Your task to perform on an android device: What's the weather going to be tomorrow? Image 0: 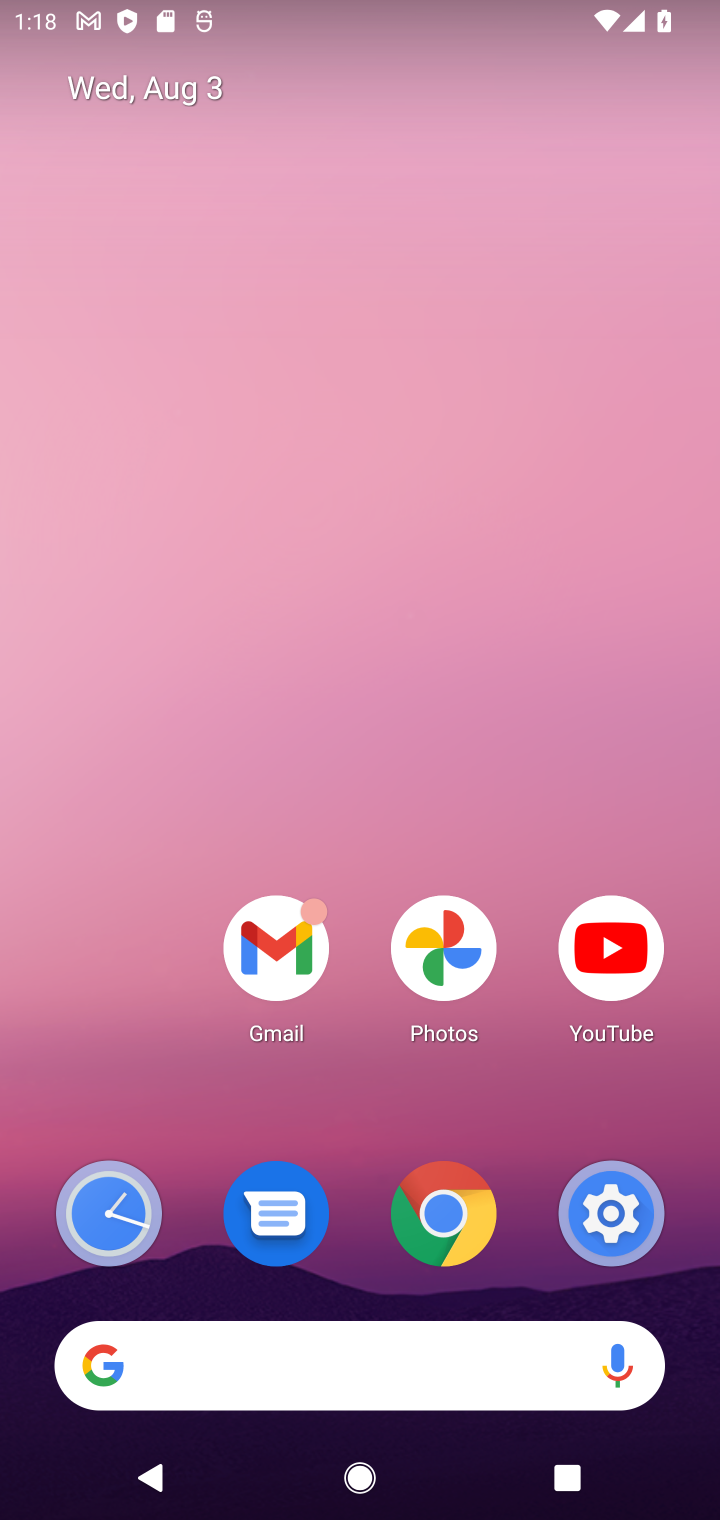
Step 0: drag from (477, 1316) to (477, 0)
Your task to perform on an android device: What's the weather going to be tomorrow? Image 1: 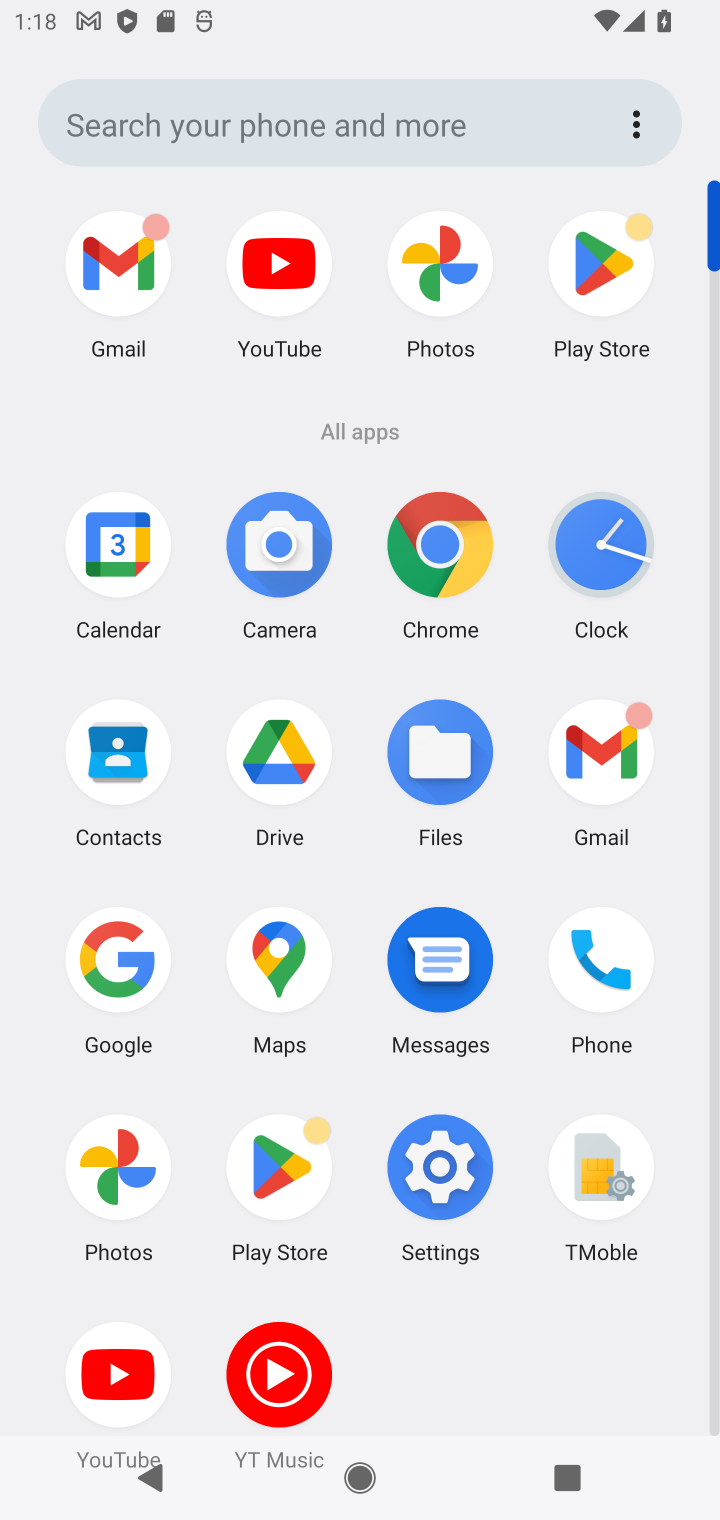
Step 1: click (423, 540)
Your task to perform on an android device: What's the weather going to be tomorrow? Image 2: 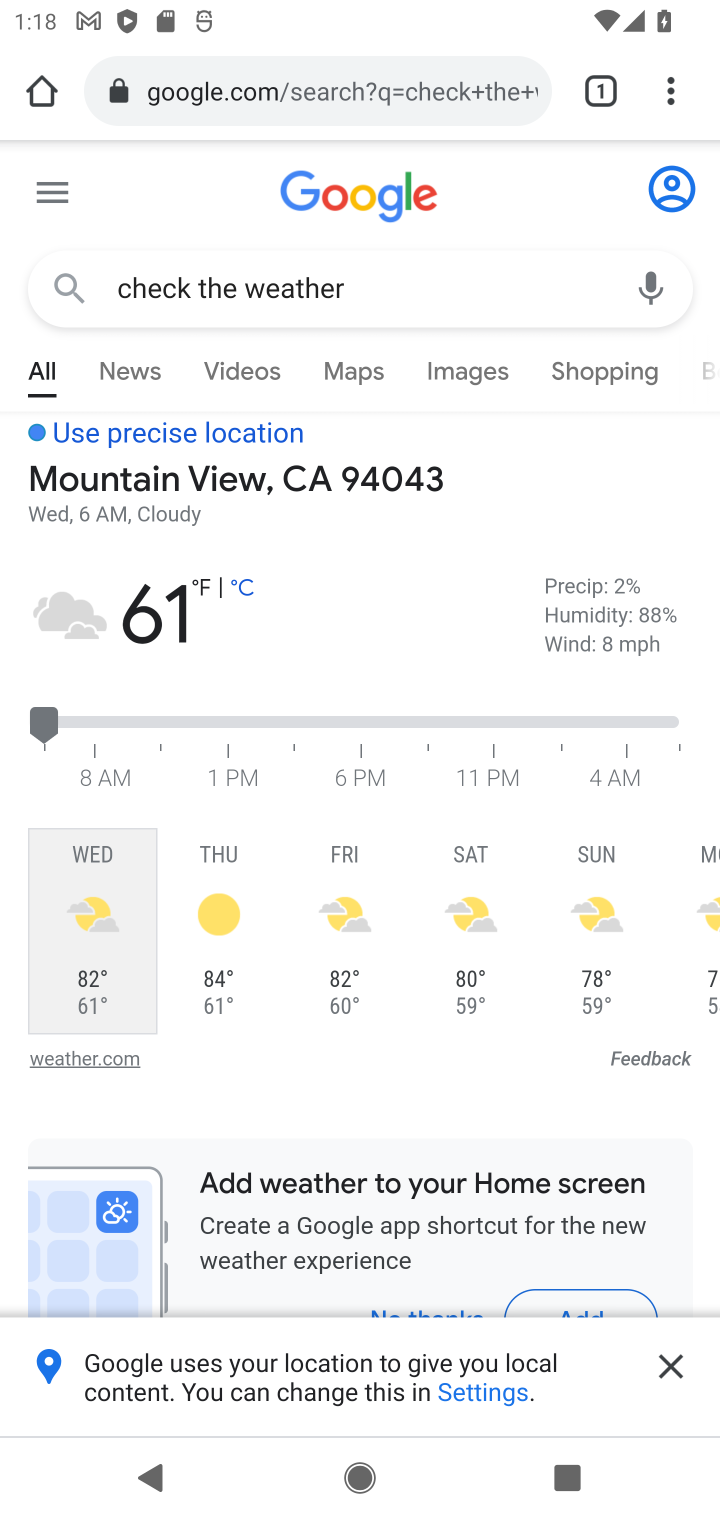
Step 2: click (435, 99)
Your task to perform on an android device: What's the weather going to be tomorrow? Image 3: 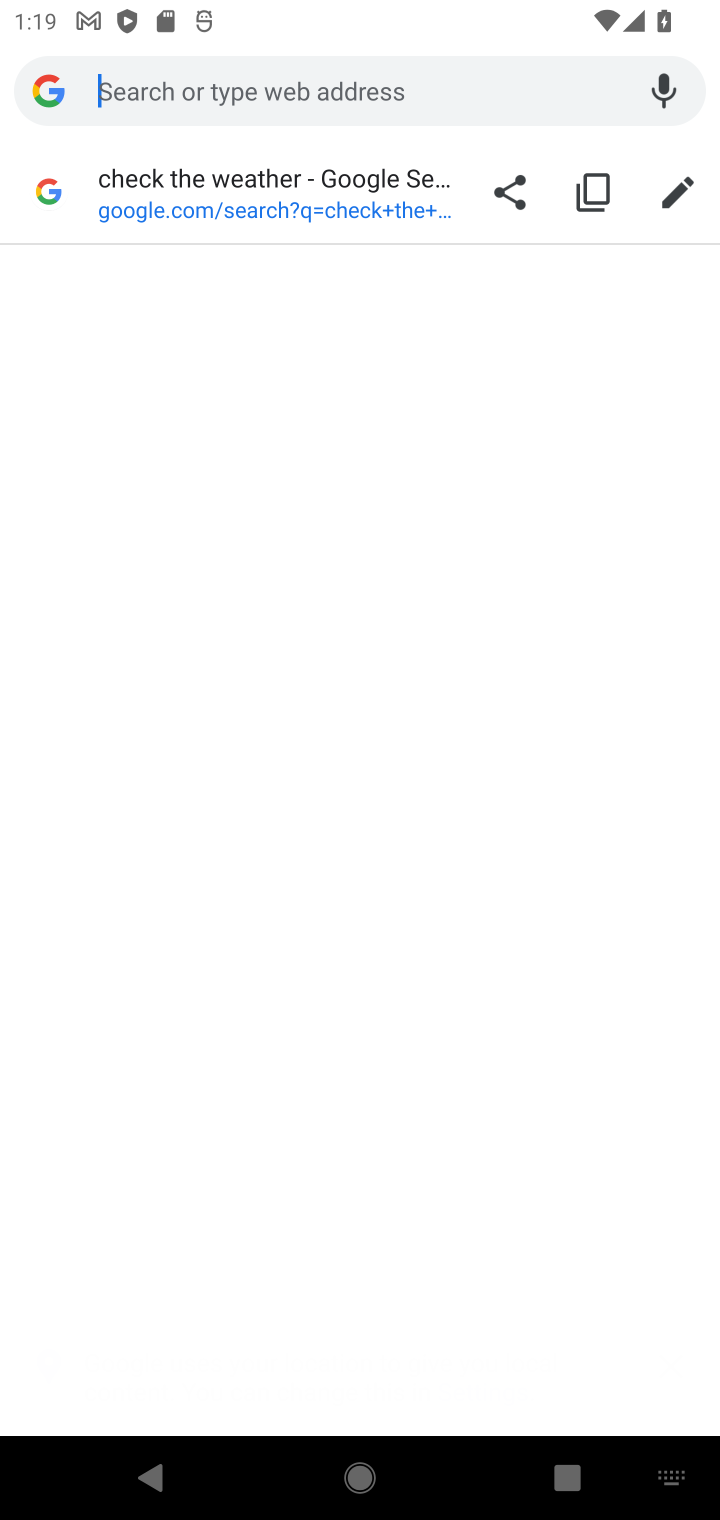
Step 3: type "weather going to be tomorrow"
Your task to perform on an android device: What's the weather going to be tomorrow? Image 4: 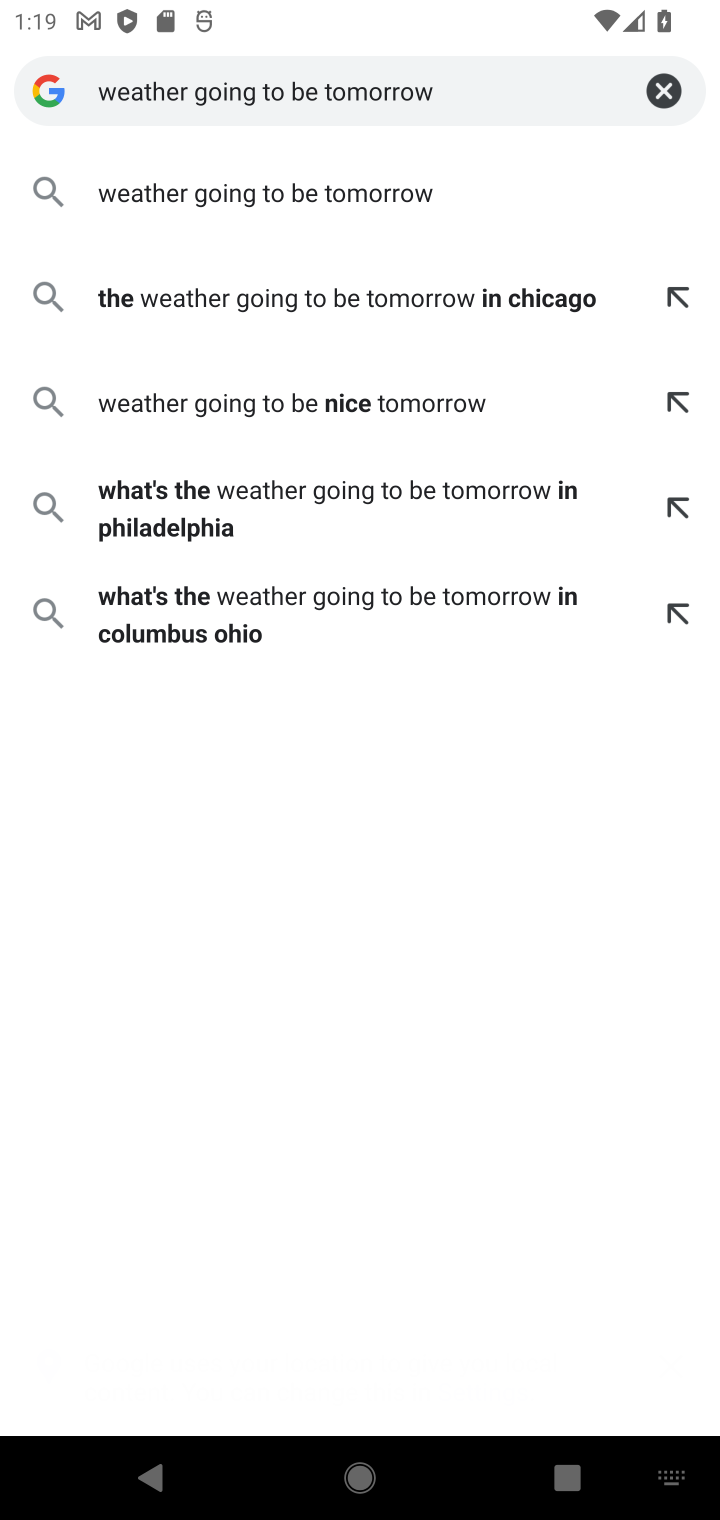
Step 4: click (268, 194)
Your task to perform on an android device: What's the weather going to be tomorrow? Image 5: 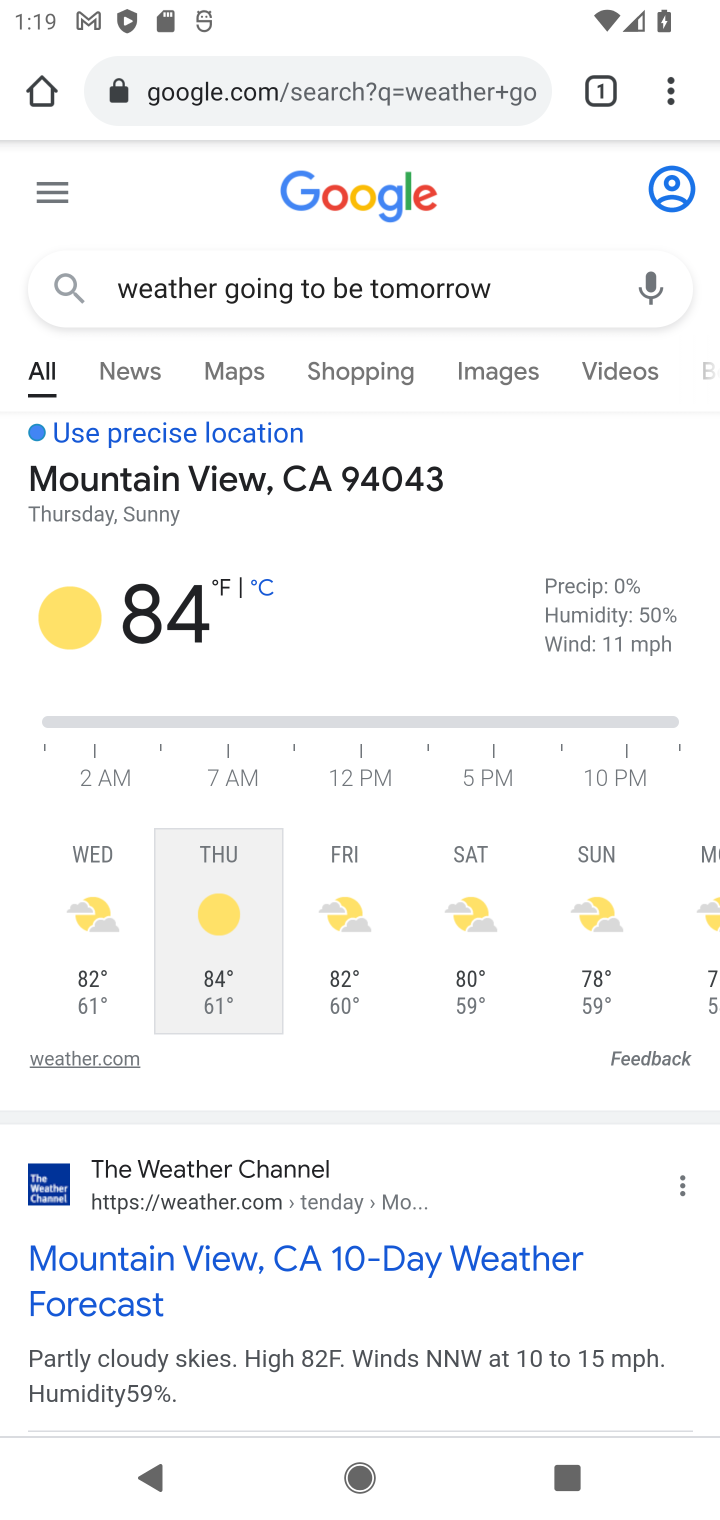
Step 5: click (319, 943)
Your task to perform on an android device: What's the weather going to be tomorrow? Image 6: 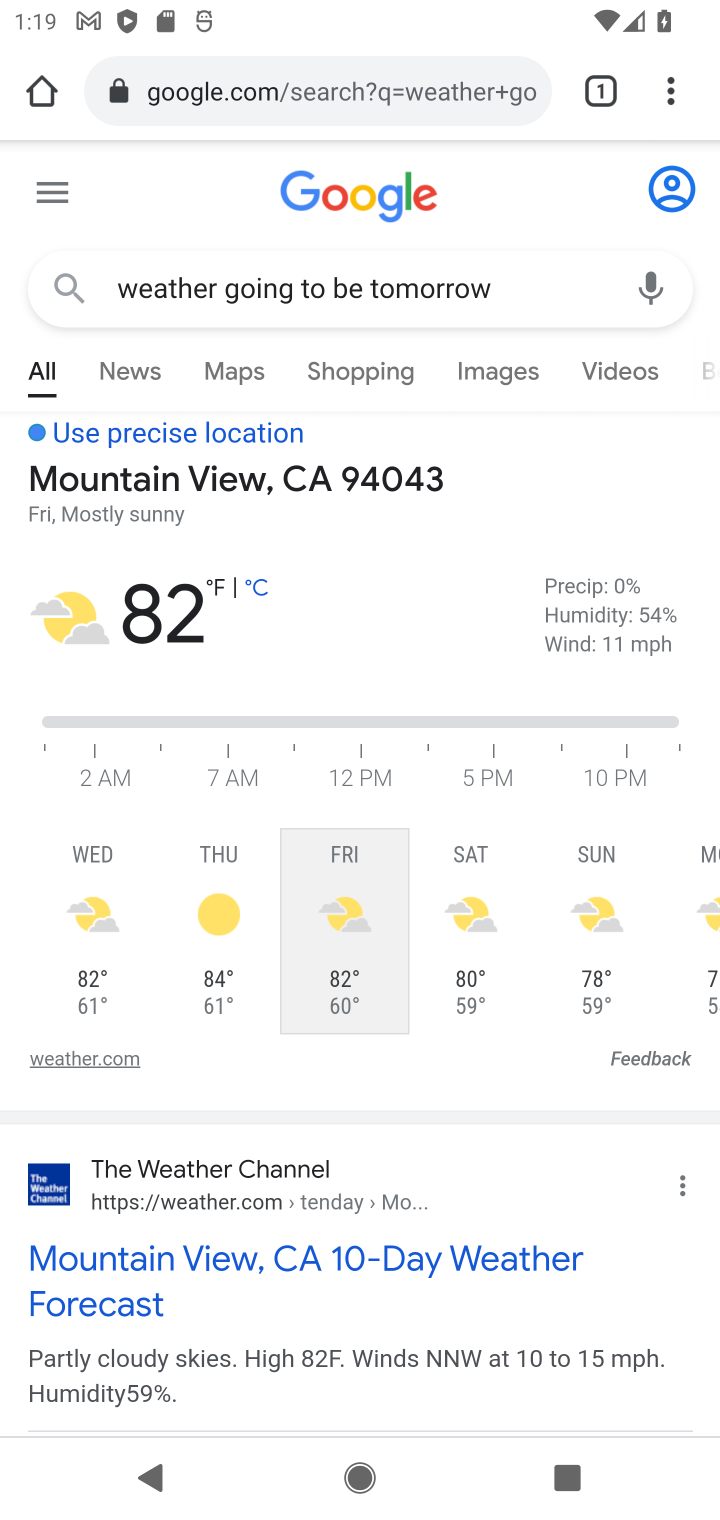
Step 6: task complete